Your task to perform on an android device: Open the calendar and show me this week's events Image 0: 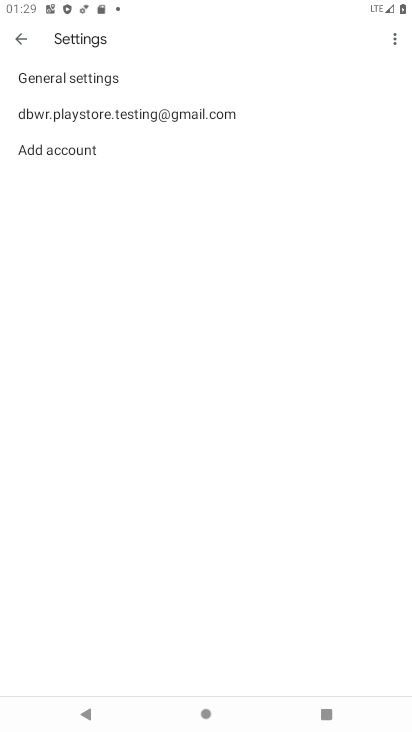
Step 0: press home button
Your task to perform on an android device: Open the calendar and show me this week's events Image 1: 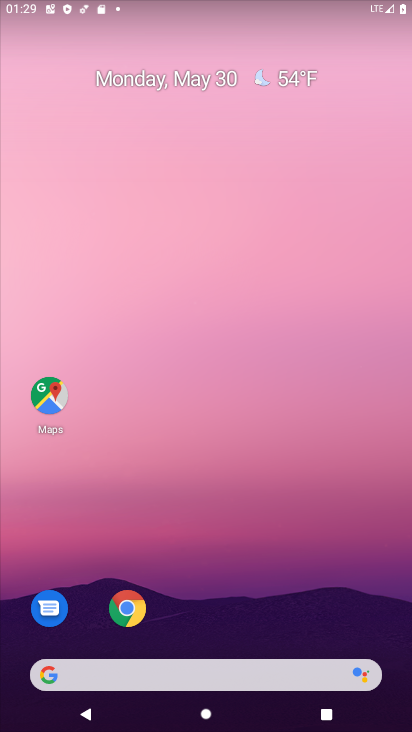
Step 1: drag from (229, 601) to (193, 78)
Your task to perform on an android device: Open the calendar and show me this week's events Image 2: 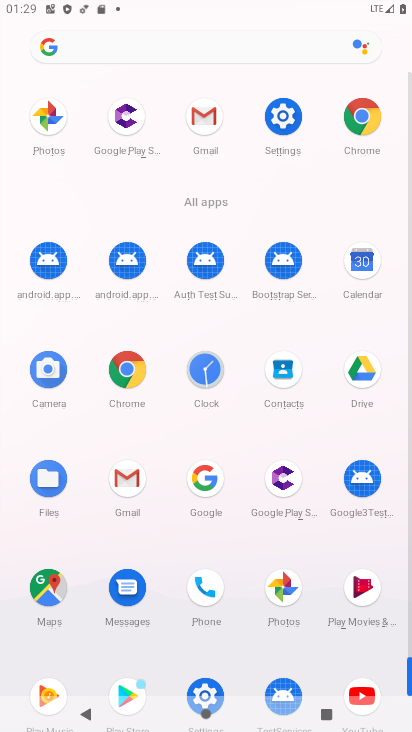
Step 2: click (356, 257)
Your task to perform on an android device: Open the calendar and show me this week's events Image 3: 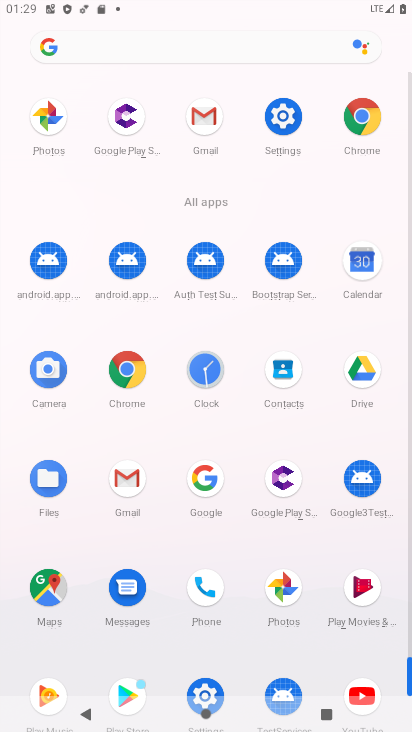
Step 3: click (364, 265)
Your task to perform on an android device: Open the calendar and show me this week's events Image 4: 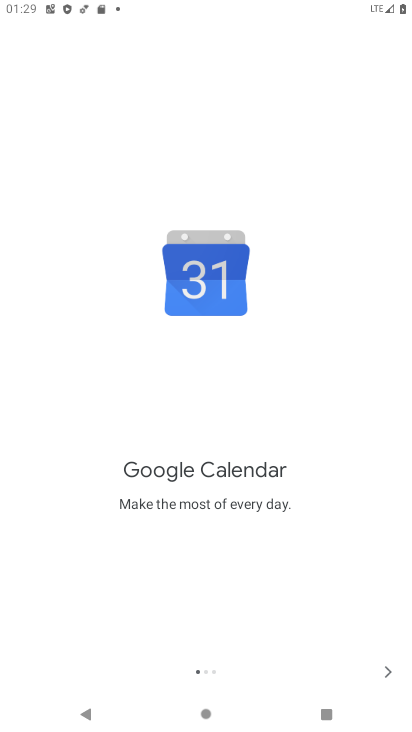
Step 4: click (378, 657)
Your task to perform on an android device: Open the calendar and show me this week's events Image 5: 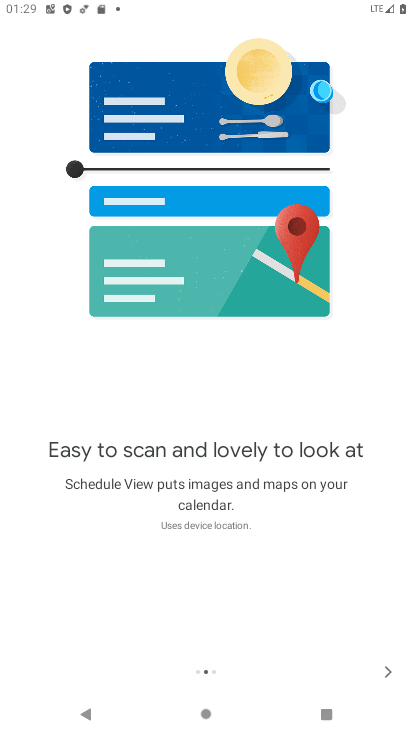
Step 5: click (383, 665)
Your task to perform on an android device: Open the calendar and show me this week's events Image 6: 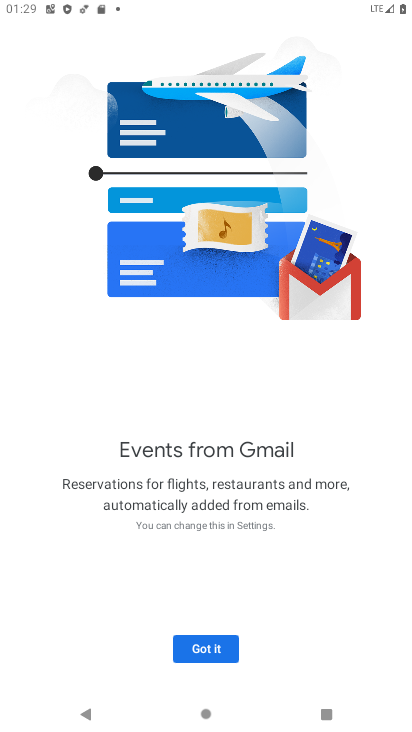
Step 6: click (383, 665)
Your task to perform on an android device: Open the calendar and show me this week's events Image 7: 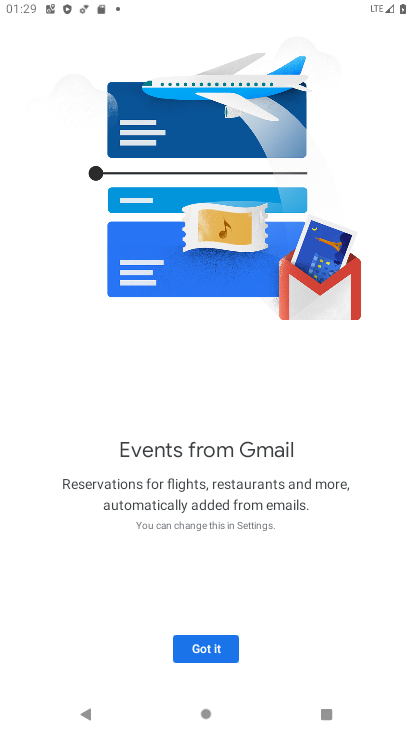
Step 7: click (205, 634)
Your task to perform on an android device: Open the calendar and show me this week's events Image 8: 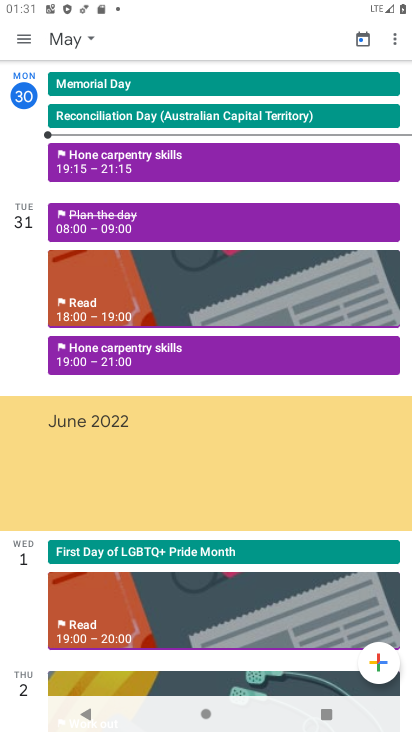
Step 8: task complete